Your task to perform on an android device: see creations saved in the google photos Image 0: 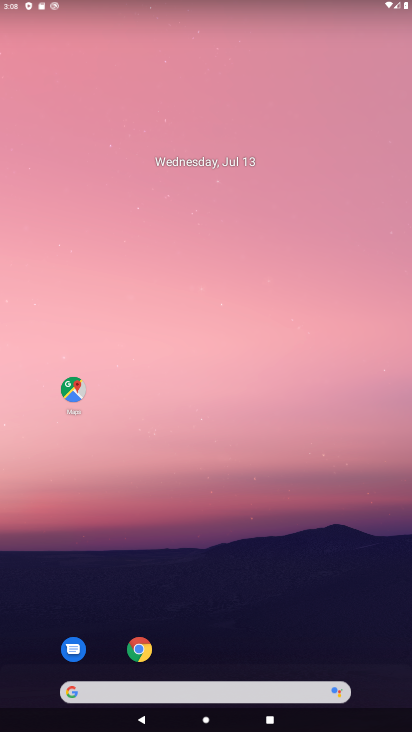
Step 0: drag from (179, 698) to (268, 260)
Your task to perform on an android device: see creations saved in the google photos Image 1: 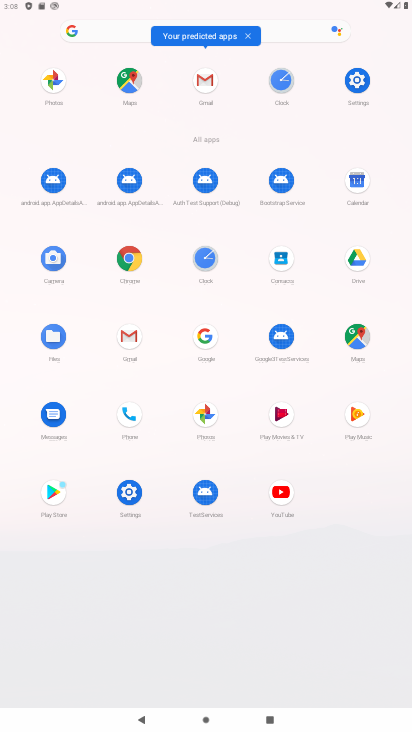
Step 1: click (205, 422)
Your task to perform on an android device: see creations saved in the google photos Image 2: 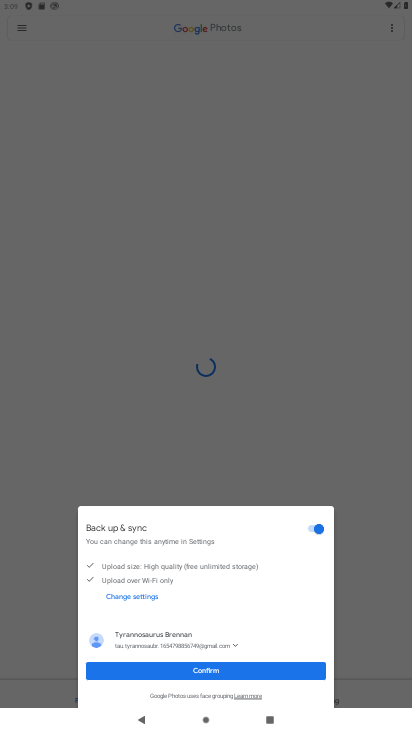
Step 2: click (212, 668)
Your task to perform on an android device: see creations saved in the google photos Image 3: 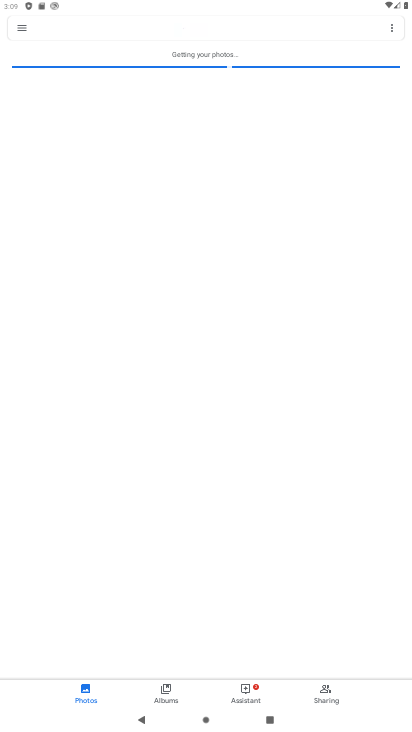
Step 3: click (210, 28)
Your task to perform on an android device: see creations saved in the google photos Image 4: 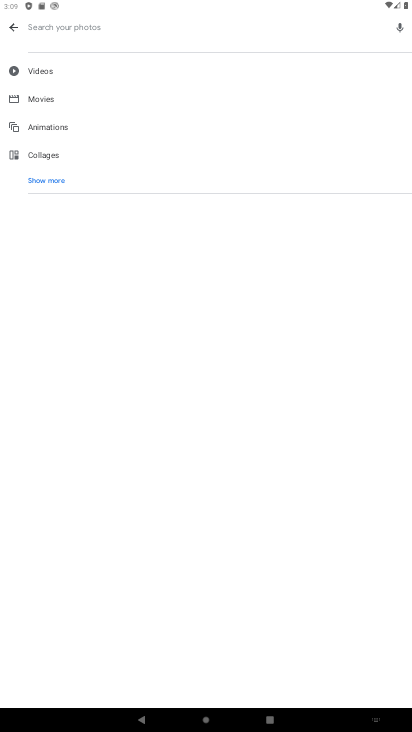
Step 4: click (50, 172)
Your task to perform on an android device: see creations saved in the google photos Image 5: 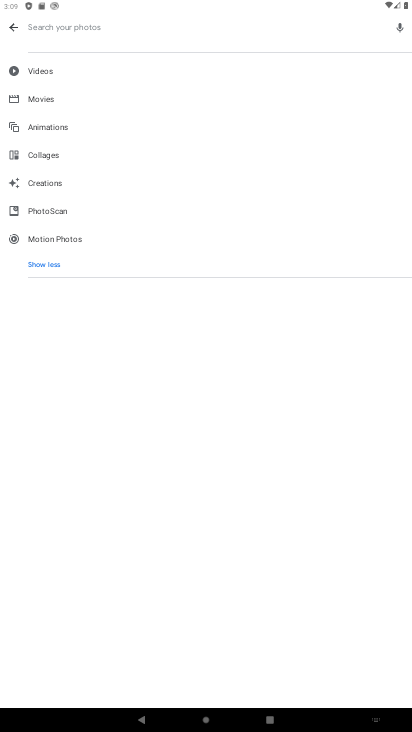
Step 5: click (65, 188)
Your task to perform on an android device: see creations saved in the google photos Image 6: 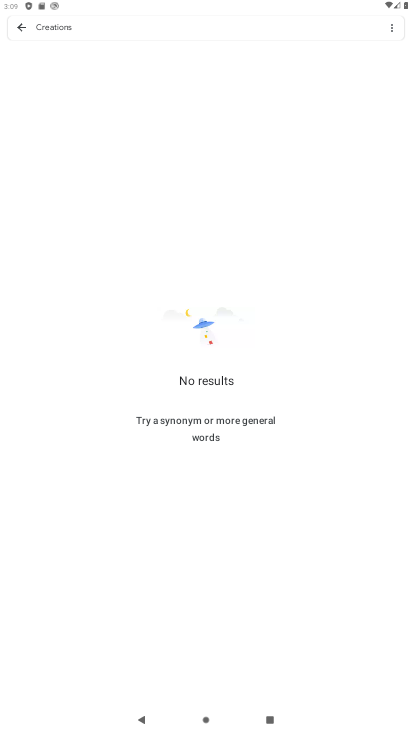
Step 6: task complete